Your task to perform on an android device: refresh tabs in the chrome app Image 0: 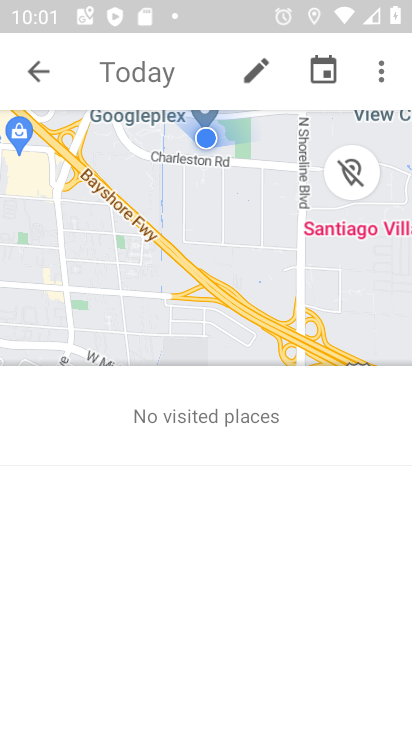
Step 0: press home button
Your task to perform on an android device: refresh tabs in the chrome app Image 1: 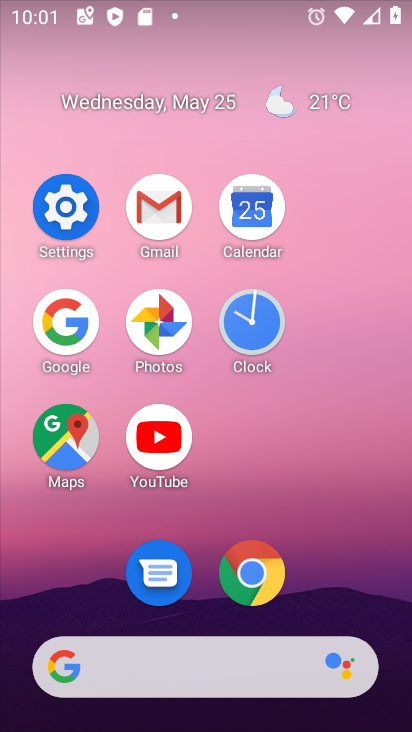
Step 1: click (250, 584)
Your task to perform on an android device: refresh tabs in the chrome app Image 2: 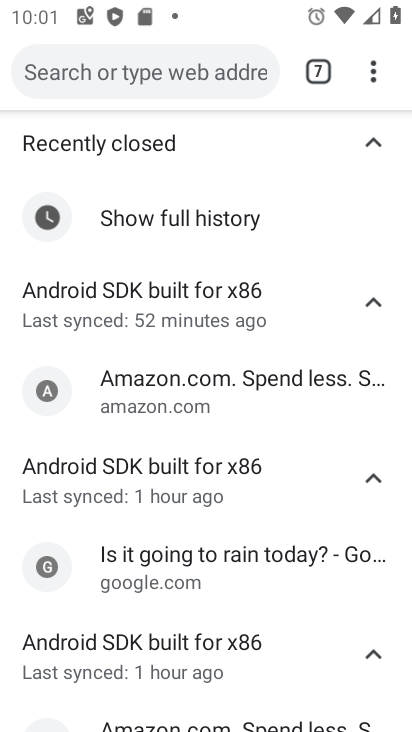
Step 2: click (367, 81)
Your task to perform on an android device: refresh tabs in the chrome app Image 3: 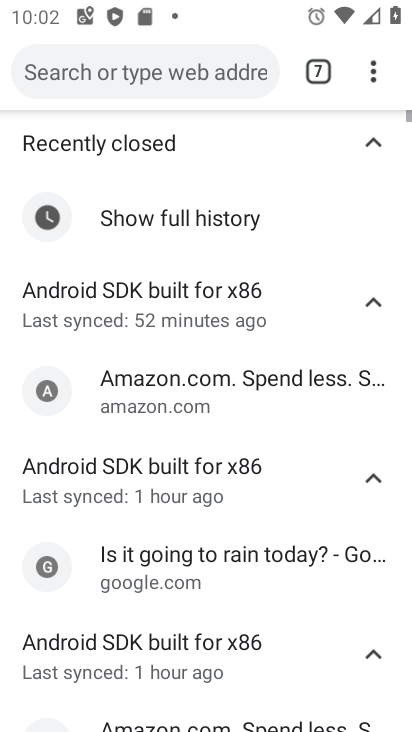
Step 3: click (378, 67)
Your task to perform on an android device: refresh tabs in the chrome app Image 4: 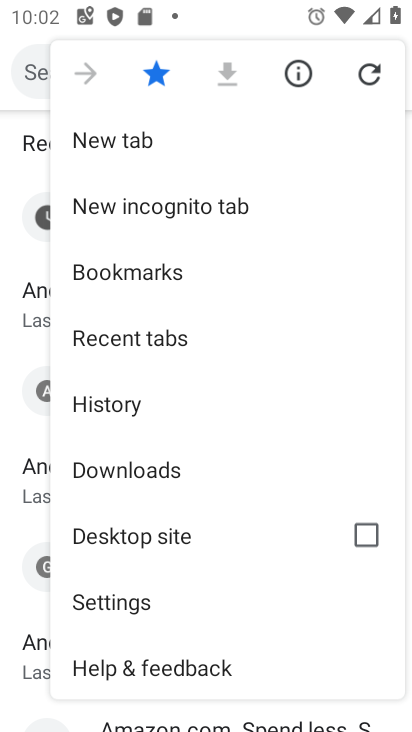
Step 4: click (372, 80)
Your task to perform on an android device: refresh tabs in the chrome app Image 5: 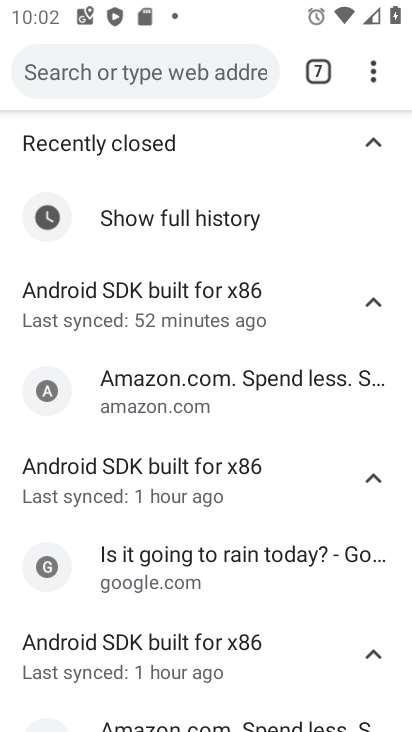
Step 5: task complete